Your task to perform on an android device: turn off improve location accuracy Image 0: 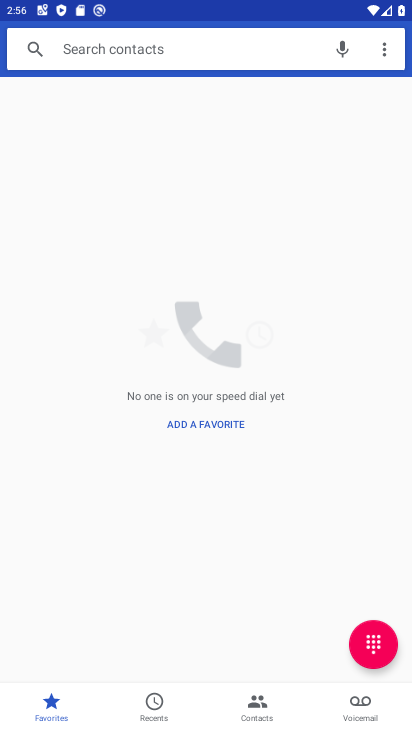
Step 0: press back button
Your task to perform on an android device: turn off improve location accuracy Image 1: 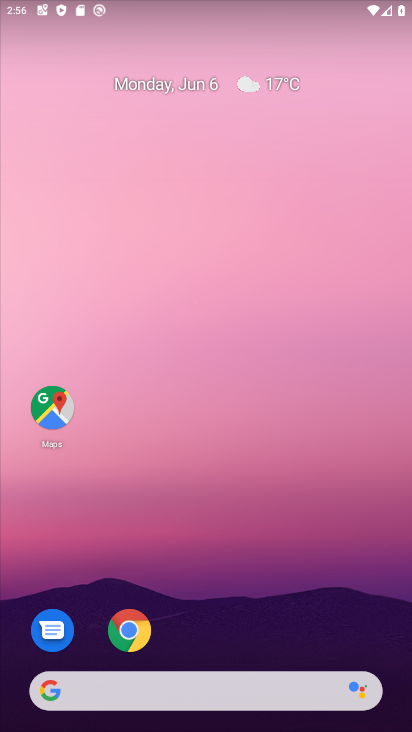
Step 1: drag from (238, 621) to (234, 60)
Your task to perform on an android device: turn off improve location accuracy Image 2: 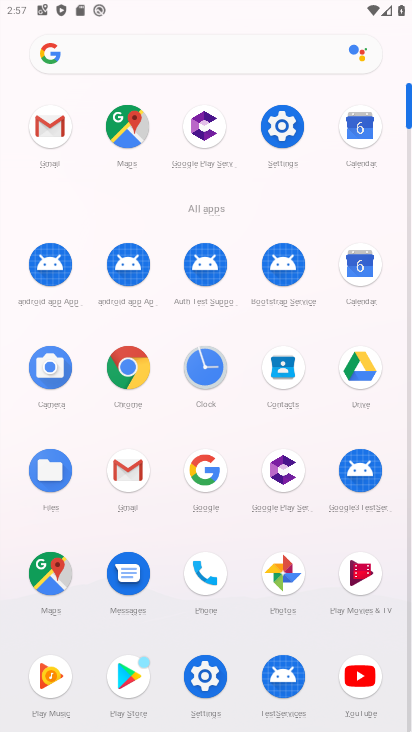
Step 2: click (278, 124)
Your task to perform on an android device: turn off improve location accuracy Image 3: 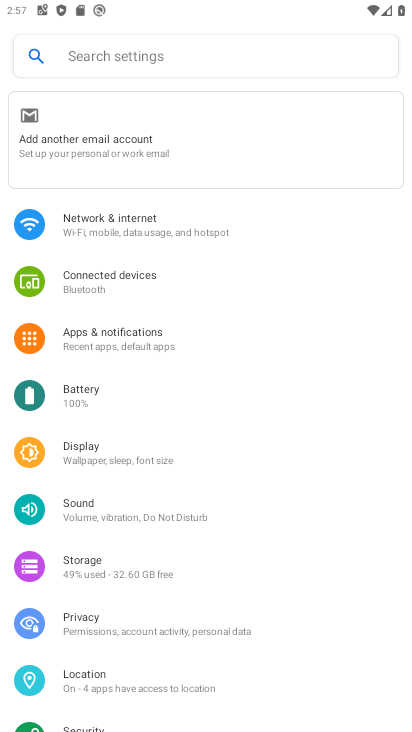
Step 3: click (94, 680)
Your task to perform on an android device: turn off improve location accuracy Image 4: 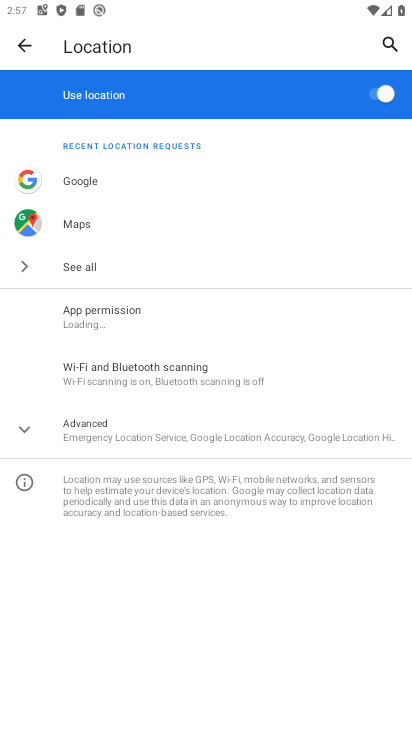
Step 4: click (132, 443)
Your task to perform on an android device: turn off improve location accuracy Image 5: 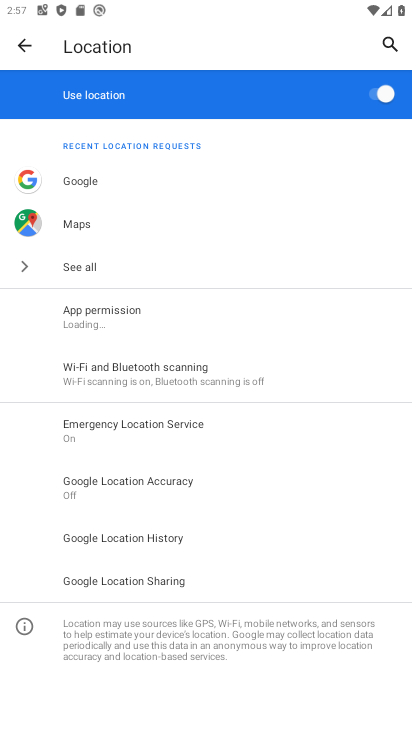
Step 5: click (151, 477)
Your task to perform on an android device: turn off improve location accuracy Image 6: 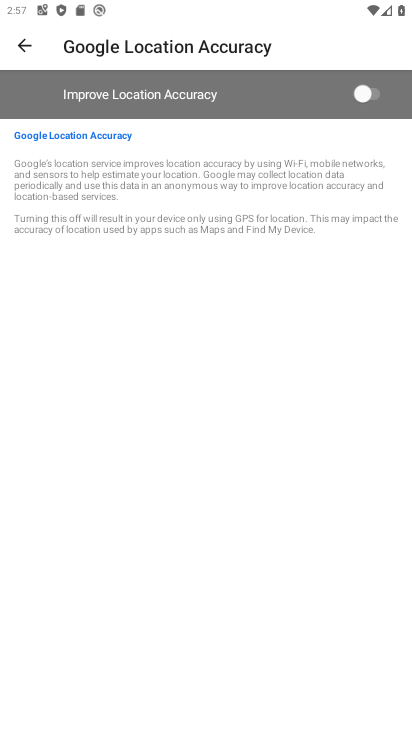
Step 6: task complete